Your task to perform on an android device: turn vacation reply on in the gmail app Image 0: 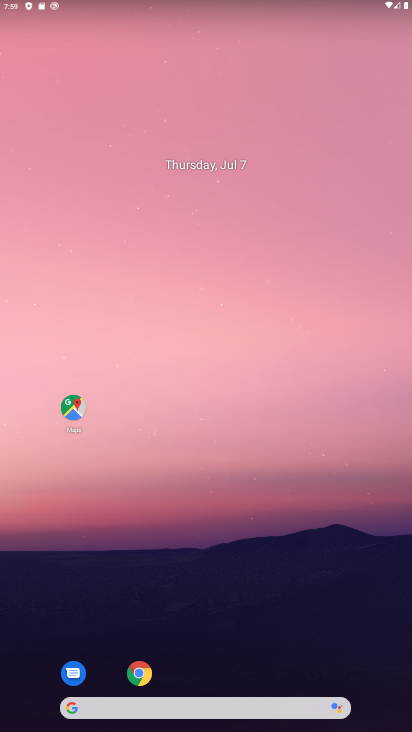
Step 0: drag from (243, 633) to (228, 176)
Your task to perform on an android device: turn vacation reply on in the gmail app Image 1: 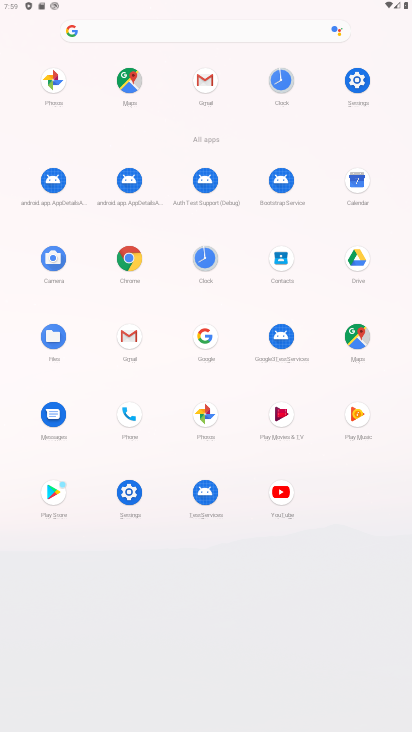
Step 1: click (135, 335)
Your task to perform on an android device: turn vacation reply on in the gmail app Image 2: 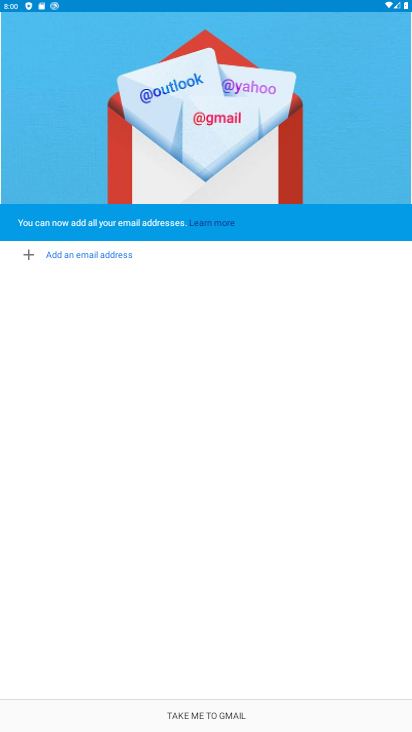
Step 2: task complete